Your task to perform on an android device: Go to Amazon Image 0: 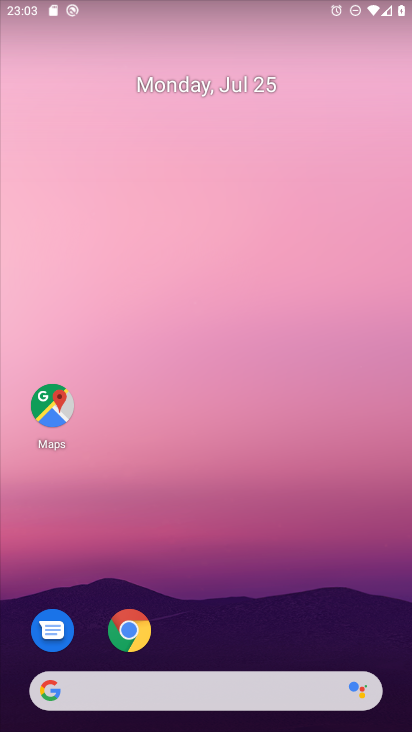
Step 0: drag from (301, 626) to (292, 67)
Your task to perform on an android device: Go to Amazon Image 1: 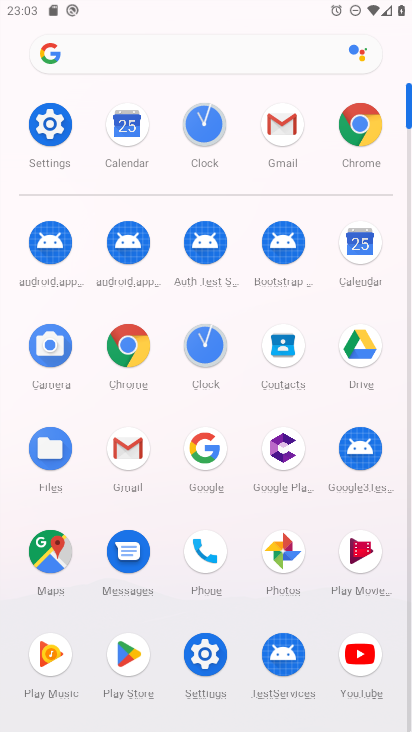
Step 1: click (356, 120)
Your task to perform on an android device: Go to Amazon Image 2: 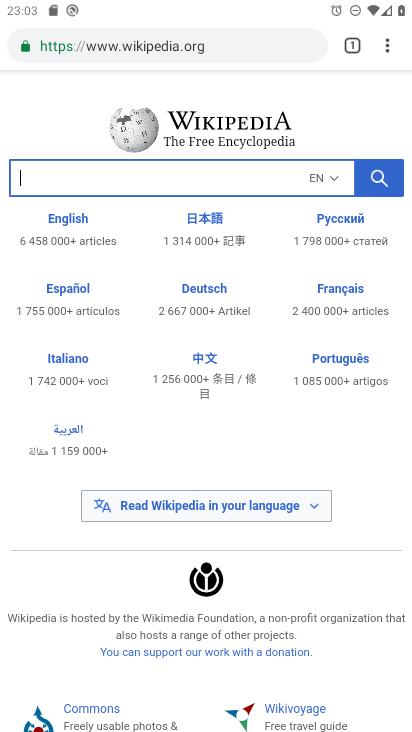
Step 2: click (276, 45)
Your task to perform on an android device: Go to Amazon Image 3: 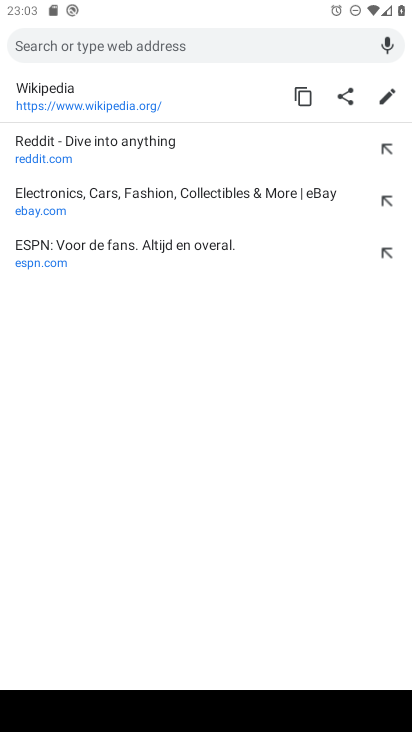
Step 3: type "amazon"
Your task to perform on an android device: Go to Amazon Image 4: 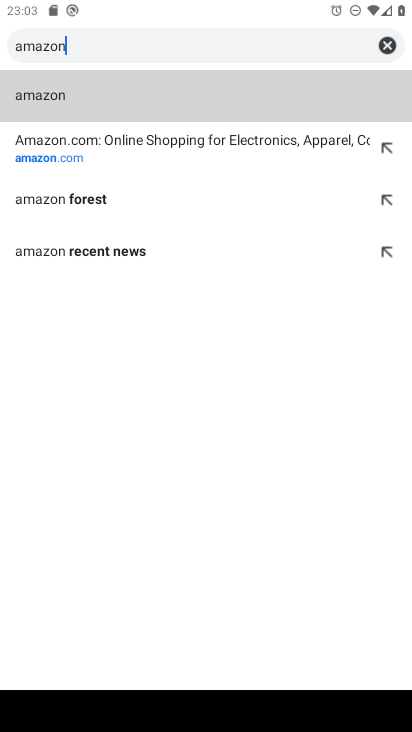
Step 4: click (57, 152)
Your task to perform on an android device: Go to Amazon Image 5: 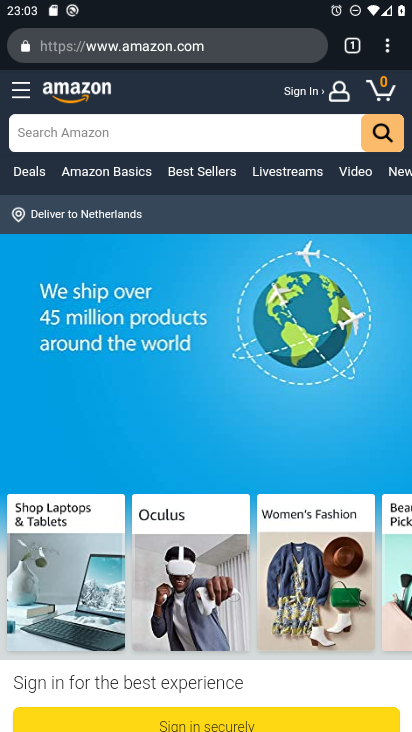
Step 5: task complete